Your task to perform on an android device: refresh tabs in the chrome app Image 0: 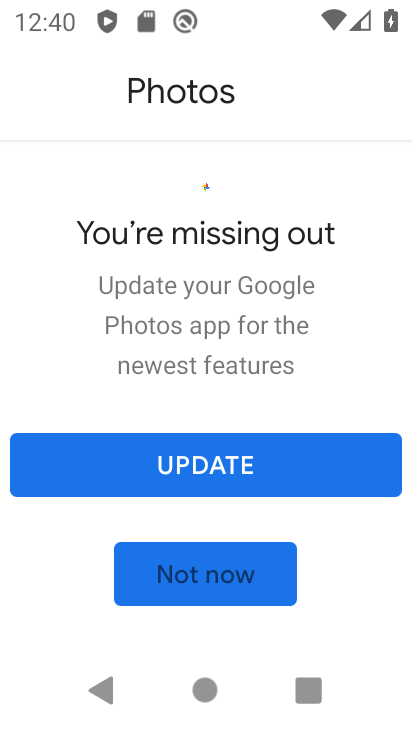
Step 0: press home button
Your task to perform on an android device: refresh tabs in the chrome app Image 1: 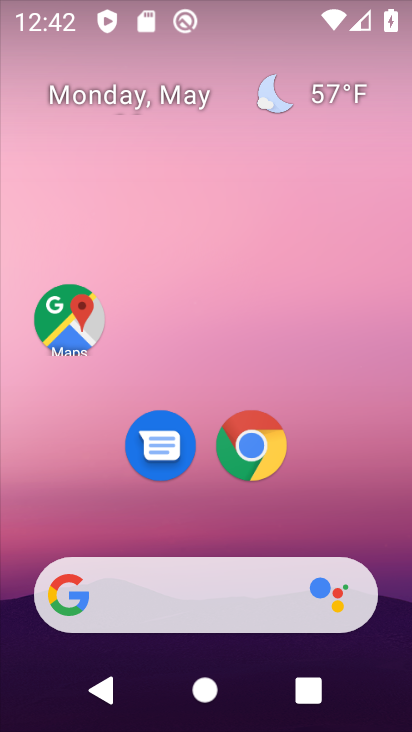
Step 1: click (246, 458)
Your task to perform on an android device: refresh tabs in the chrome app Image 2: 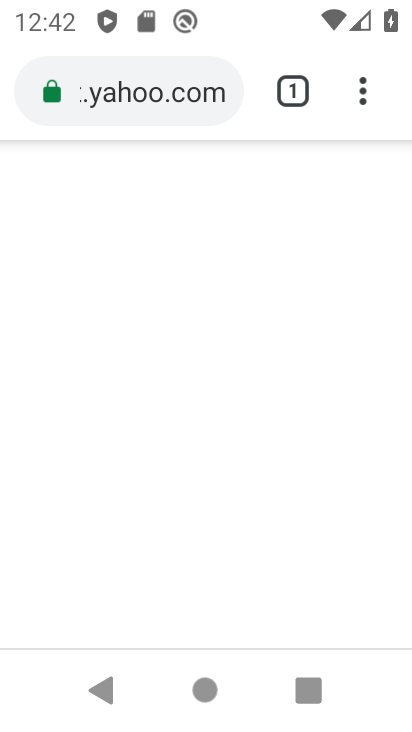
Step 2: press back button
Your task to perform on an android device: refresh tabs in the chrome app Image 3: 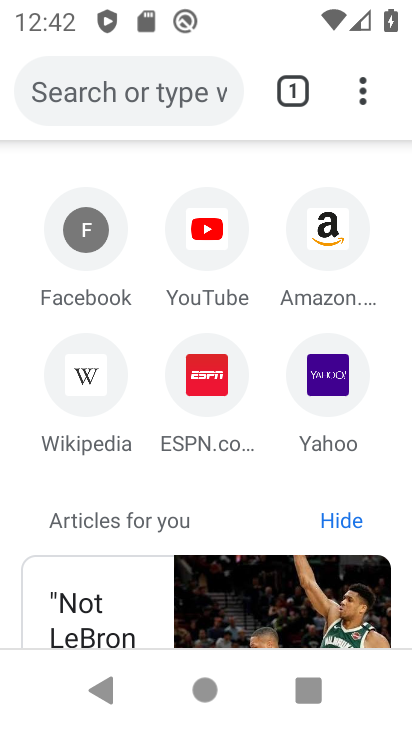
Step 3: click (359, 89)
Your task to perform on an android device: refresh tabs in the chrome app Image 4: 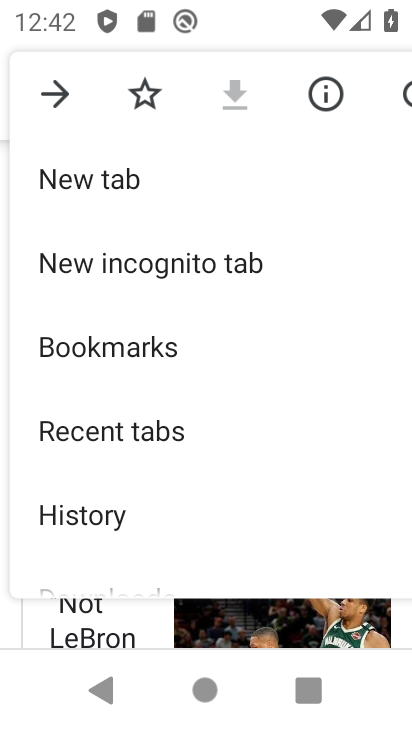
Step 4: drag from (350, 89) to (83, 105)
Your task to perform on an android device: refresh tabs in the chrome app Image 5: 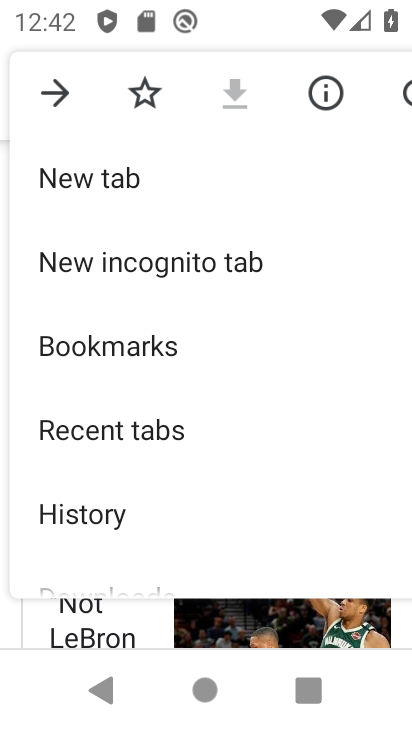
Step 5: click (407, 100)
Your task to perform on an android device: refresh tabs in the chrome app Image 6: 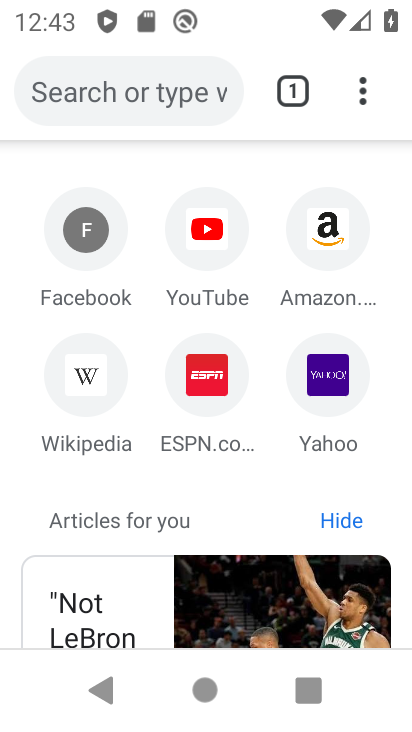
Step 6: task complete